Your task to perform on an android device: Check the news Image 0: 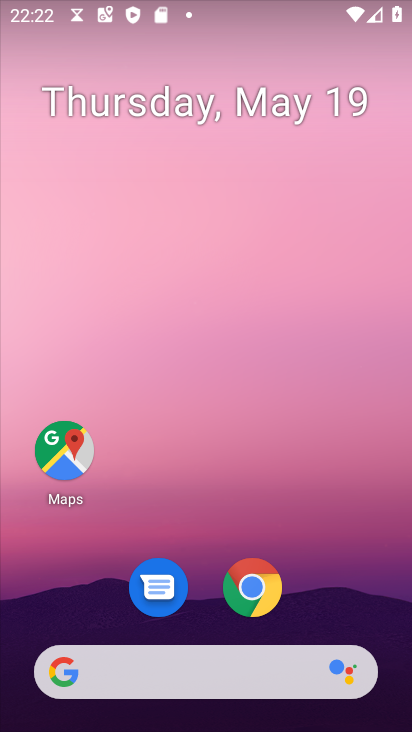
Step 0: drag from (10, 293) to (394, 317)
Your task to perform on an android device: Check the news Image 1: 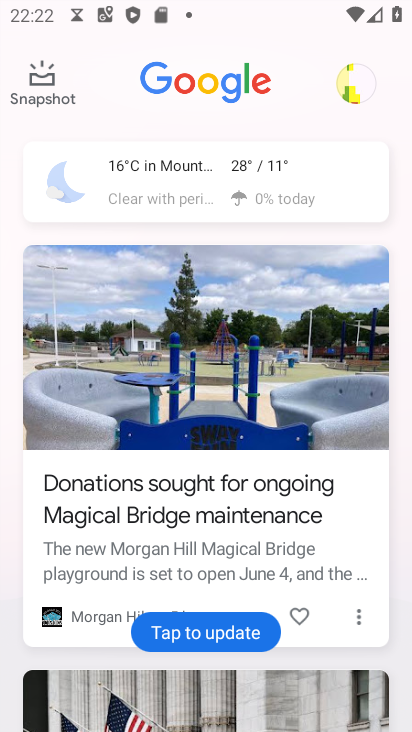
Step 1: task complete